Your task to perform on an android device: View the shopping cart on costco.com. Add "beats solo 3" to the cart on costco.com, then select checkout. Image 0: 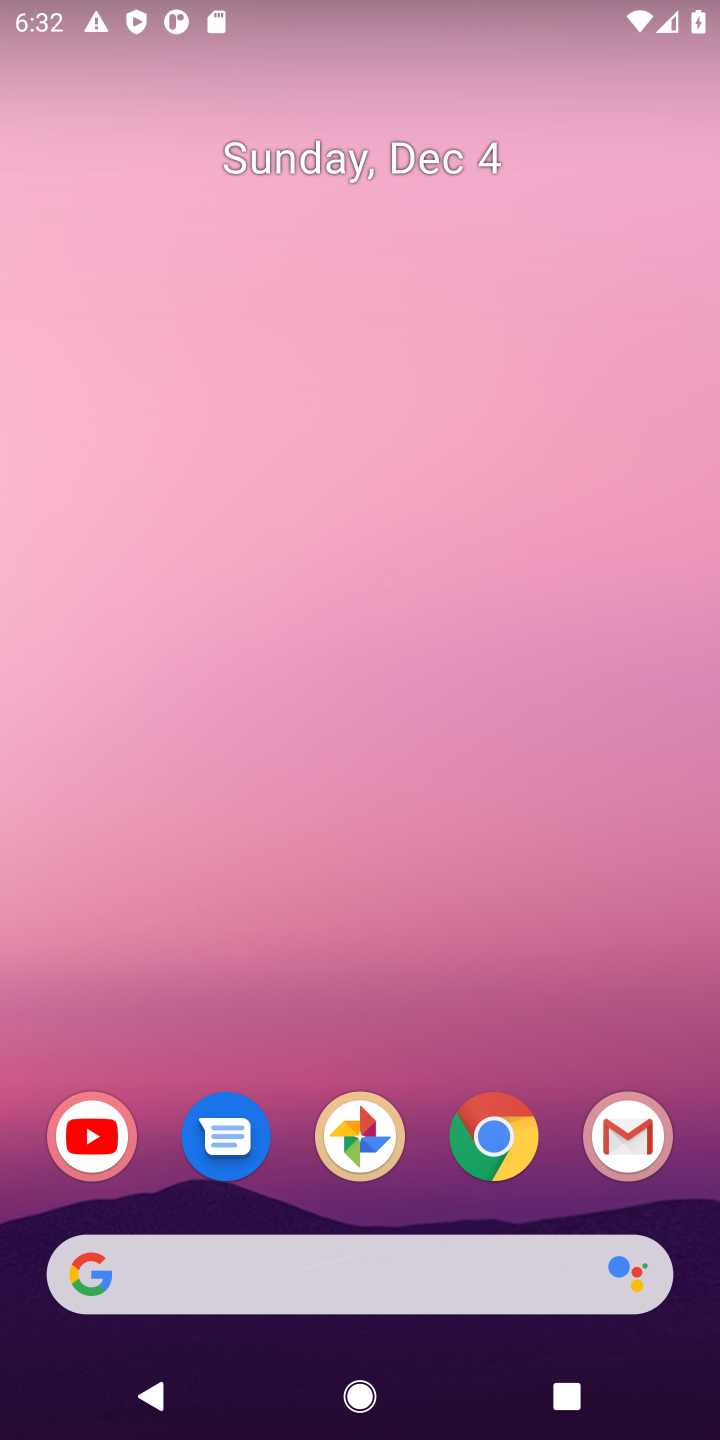
Step 0: click (499, 1128)
Your task to perform on an android device: View the shopping cart on costco.com. Add "beats solo 3" to the cart on costco.com, then select checkout. Image 1: 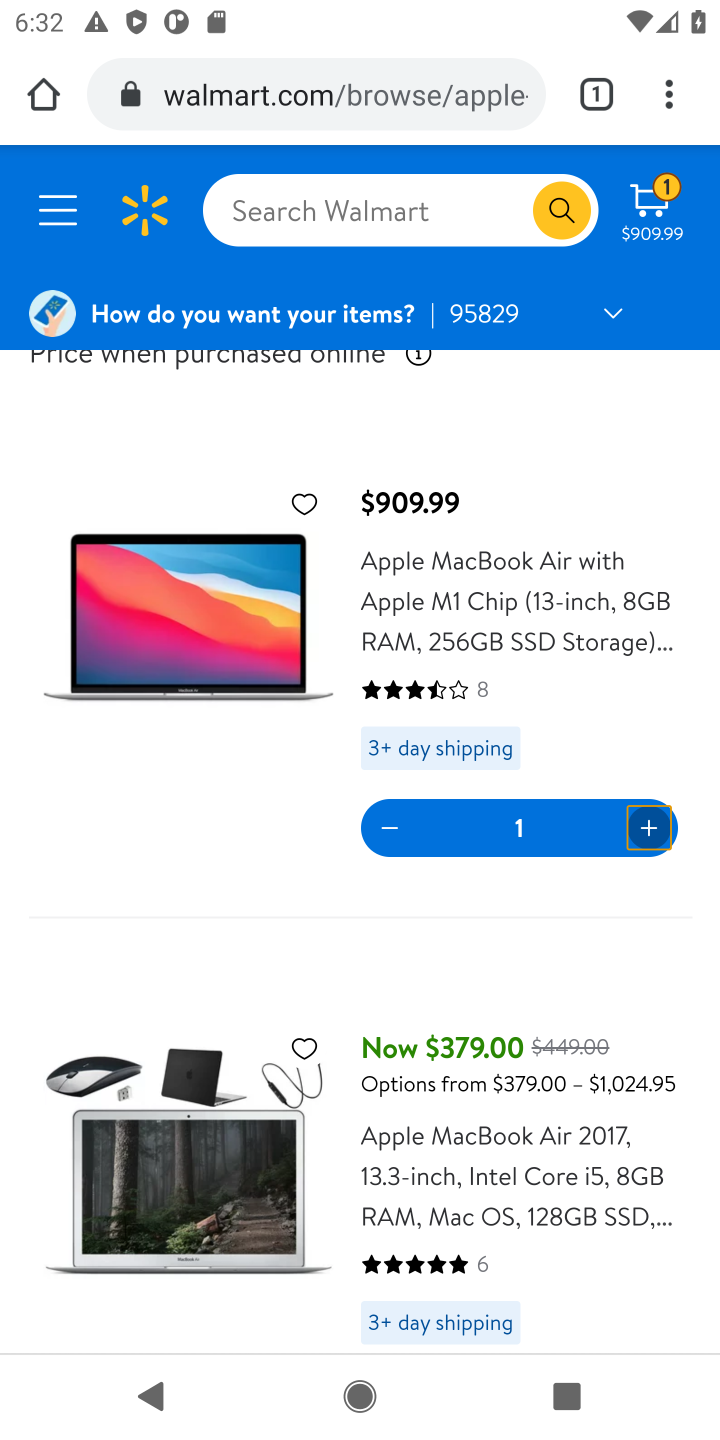
Step 1: click (354, 93)
Your task to perform on an android device: View the shopping cart on costco.com. Add "beats solo 3" to the cart on costco.com, then select checkout. Image 2: 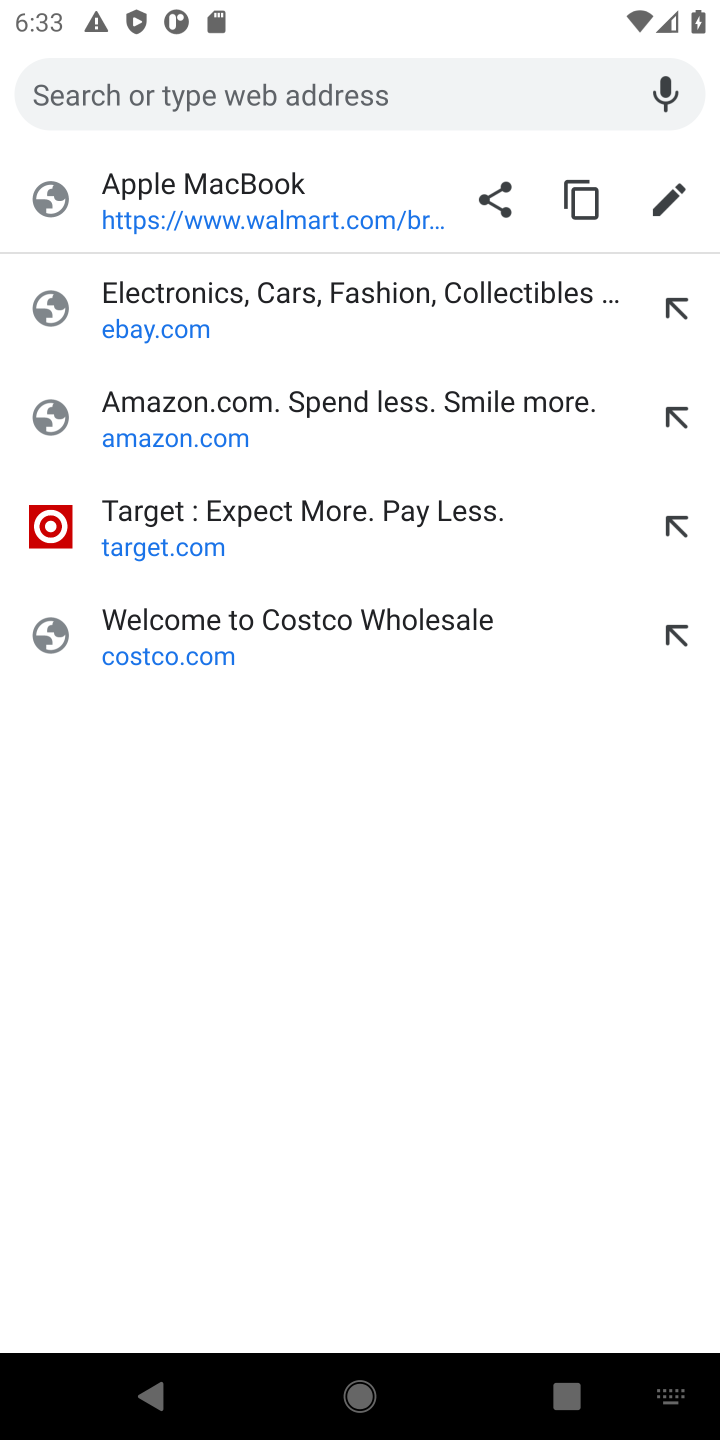
Step 2: click (150, 657)
Your task to perform on an android device: View the shopping cart on costco.com. Add "beats solo 3" to the cart on costco.com, then select checkout. Image 3: 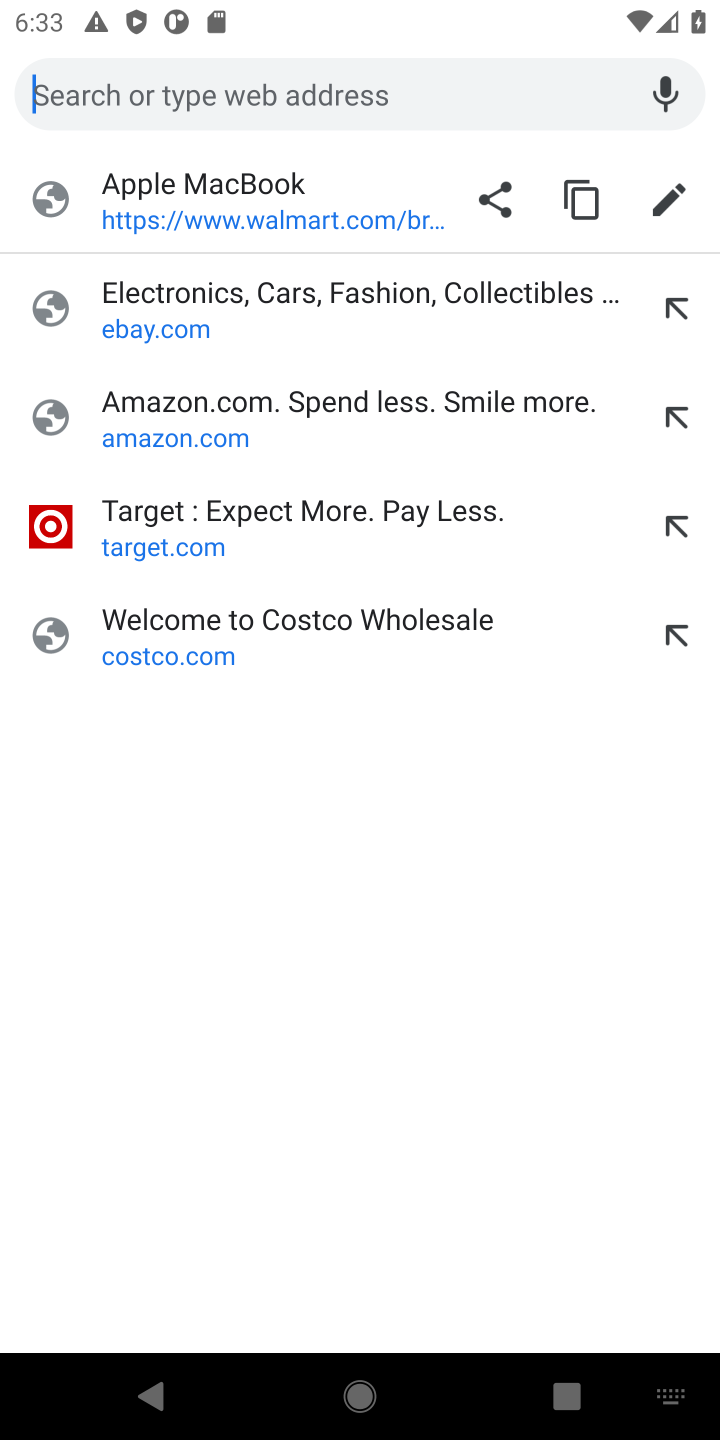
Step 3: click (155, 652)
Your task to perform on an android device: View the shopping cart on costco.com. Add "beats solo 3" to the cart on costco.com, then select checkout. Image 4: 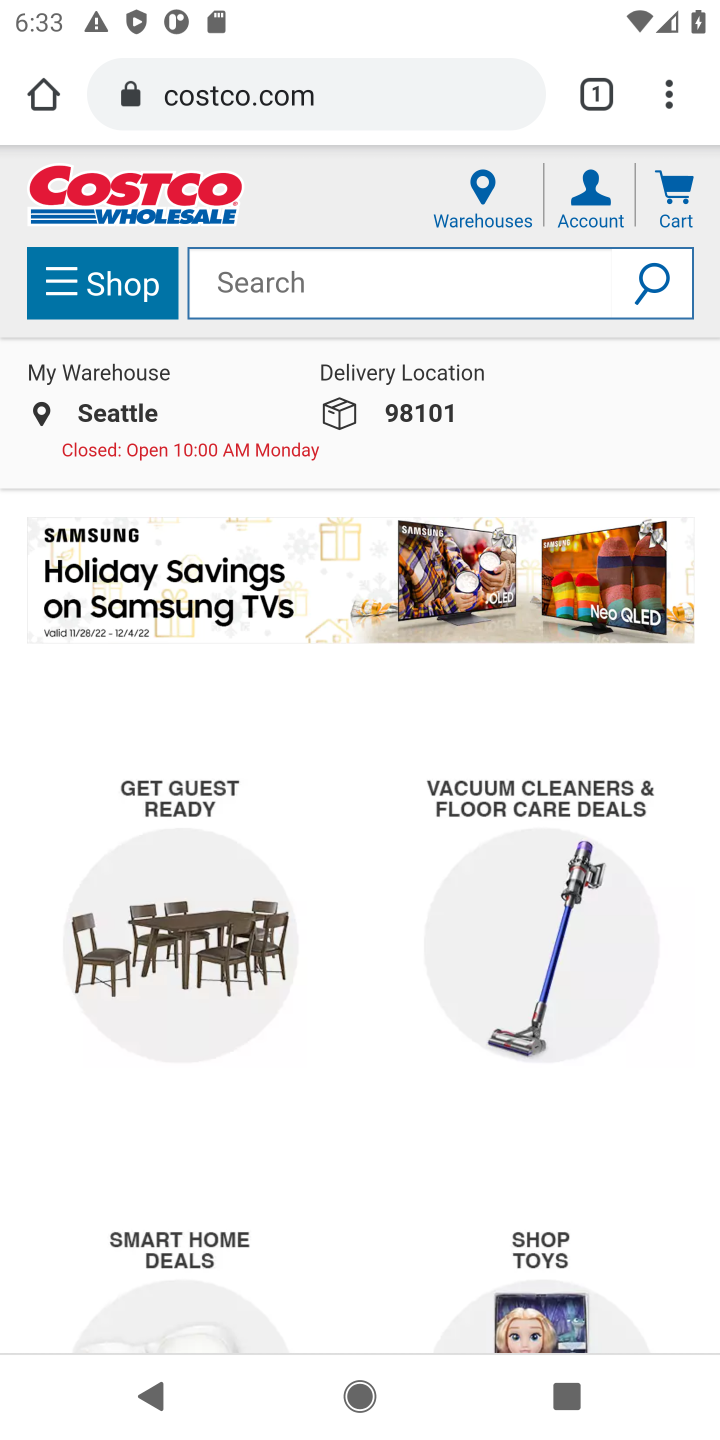
Step 4: click (685, 206)
Your task to perform on an android device: View the shopping cart on costco.com. Add "beats solo 3" to the cart on costco.com, then select checkout. Image 5: 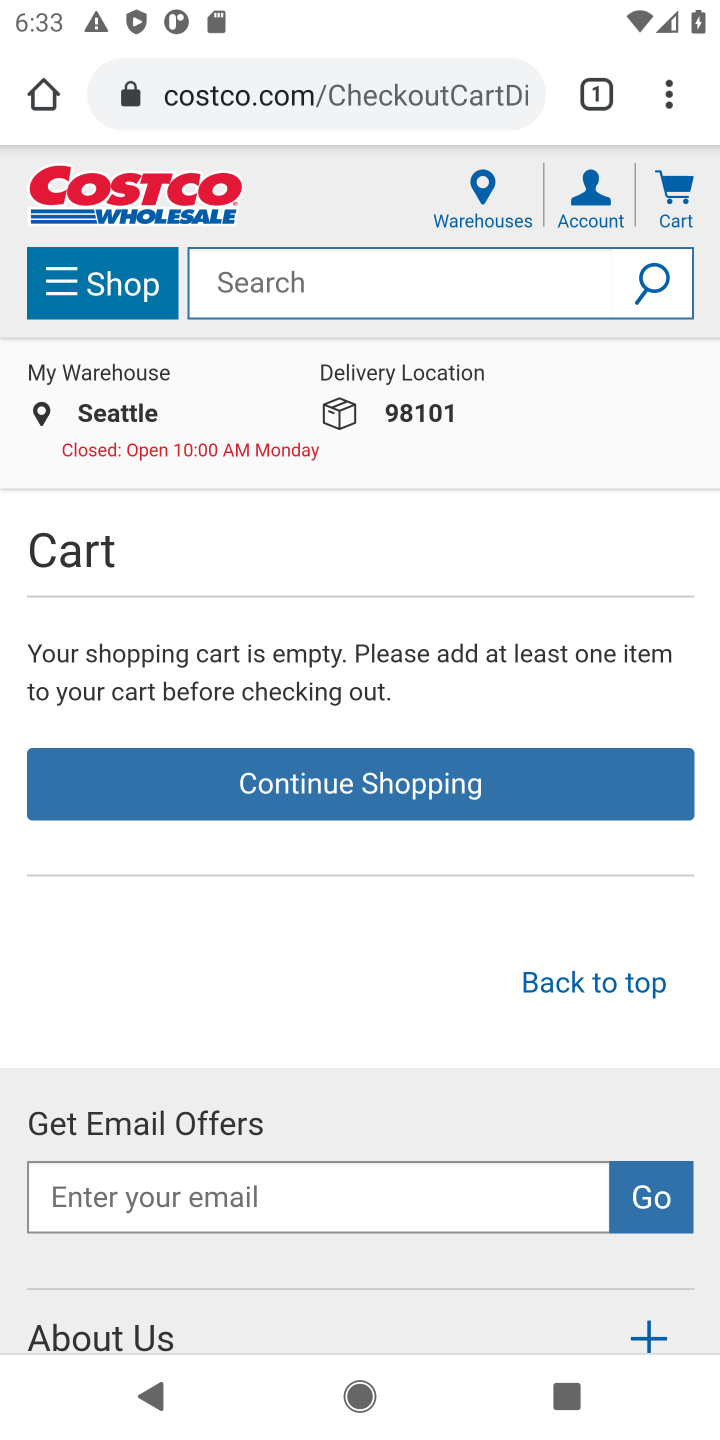
Step 5: click (271, 292)
Your task to perform on an android device: View the shopping cart on costco.com. Add "beats solo 3" to the cart on costco.com, then select checkout. Image 6: 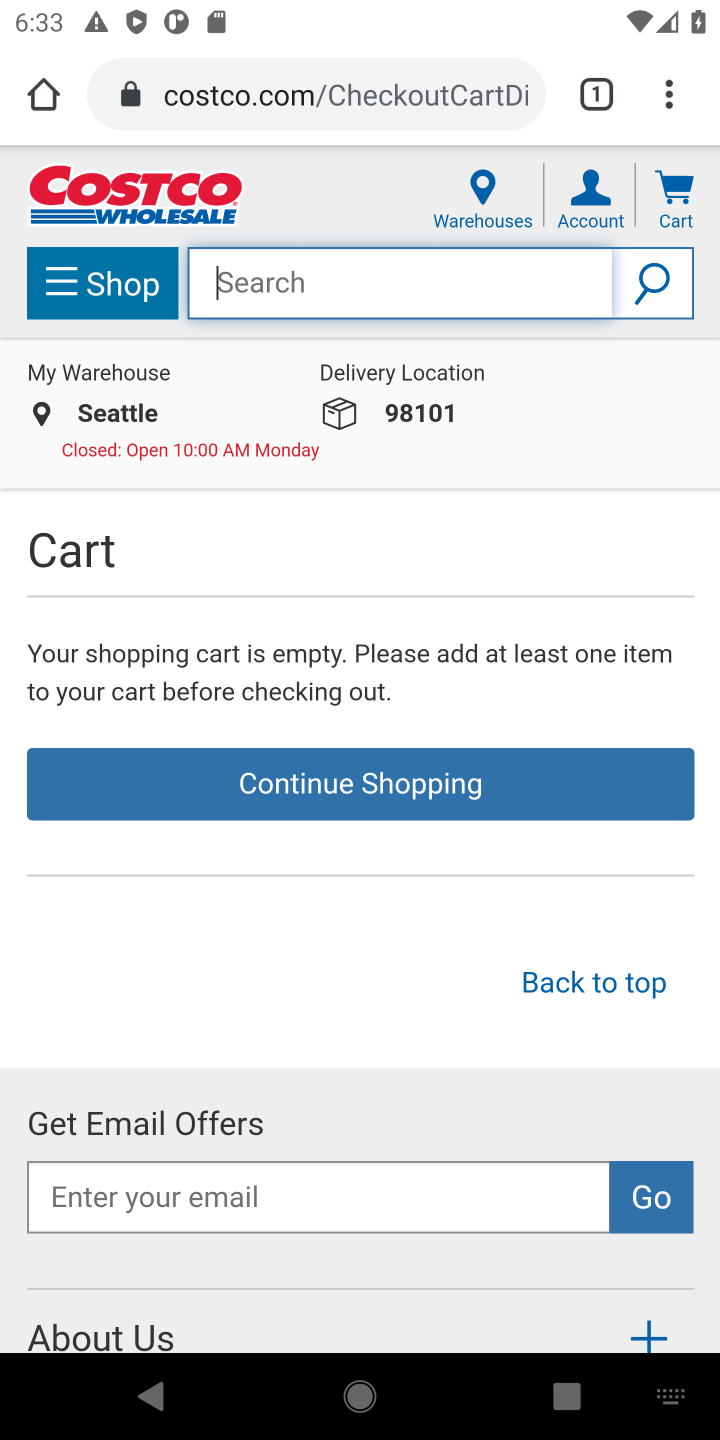
Step 6: type "beats solo 3"
Your task to perform on an android device: View the shopping cart on costco.com. Add "beats solo 3" to the cart on costco.com, then select checkout. Image 7: 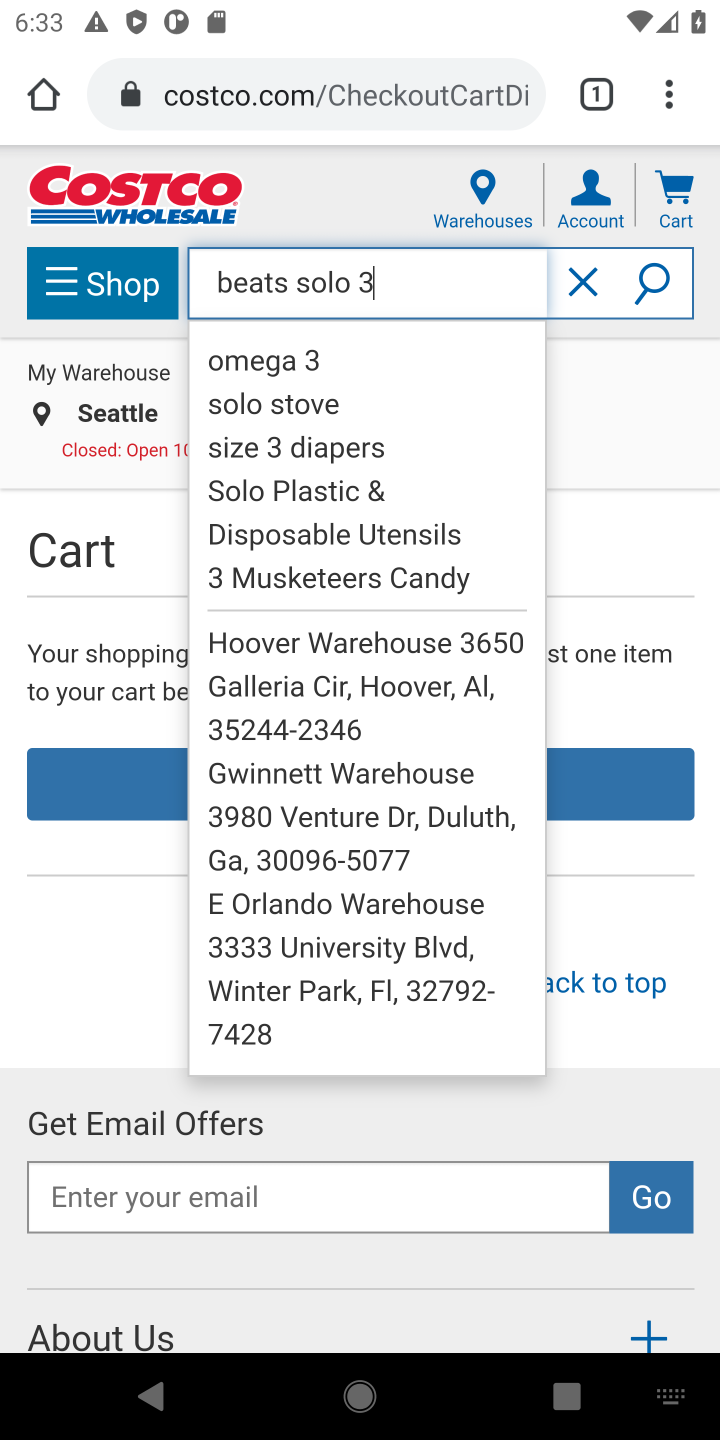
Step 7: click (654, 276)
Your task to perform on an android device: View the shopping cart on costco.com. Add "beats solo 3" to the cart on costco.com, then select checkout. Image 8: 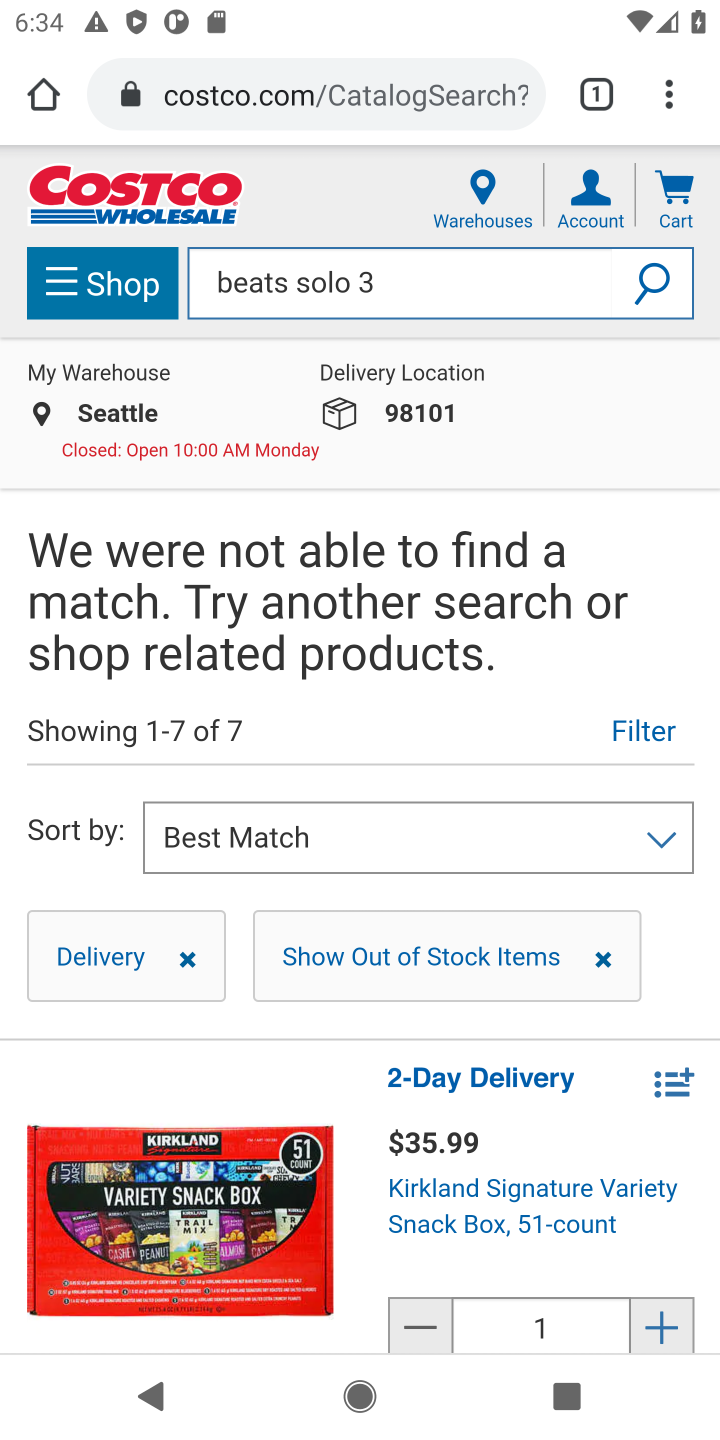
Step 8: task complete